Your task to perform on an android device: Open ESPN.com Image 0: 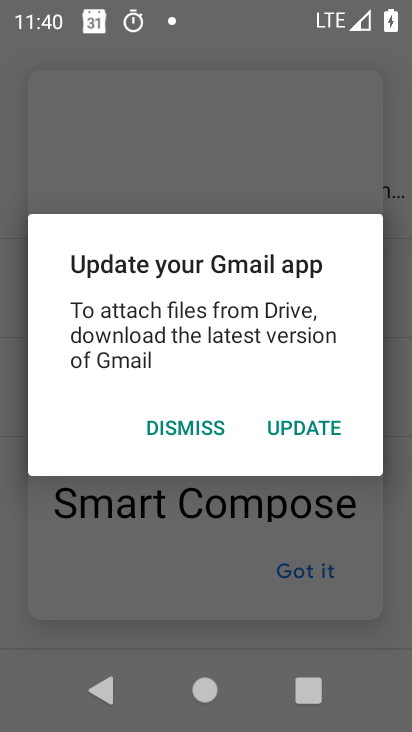
Step 0: press home button
Your task to perform on an android device: Open ESPN.com Image 1: 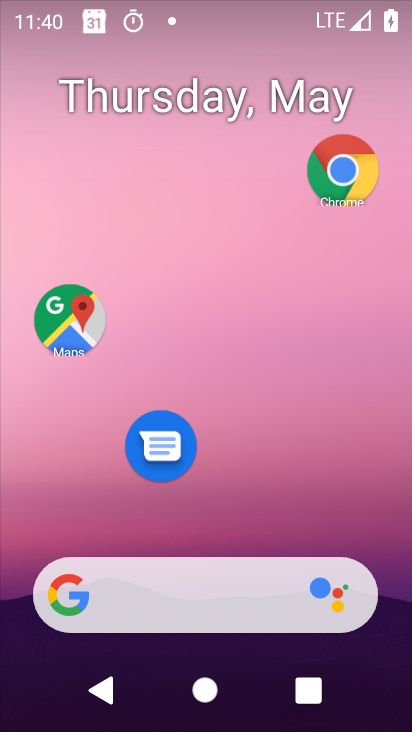
Step 1: drag from (277, 617) to (295, 1)
Your task to perform on an android device: Open ESPN.com Image 2: 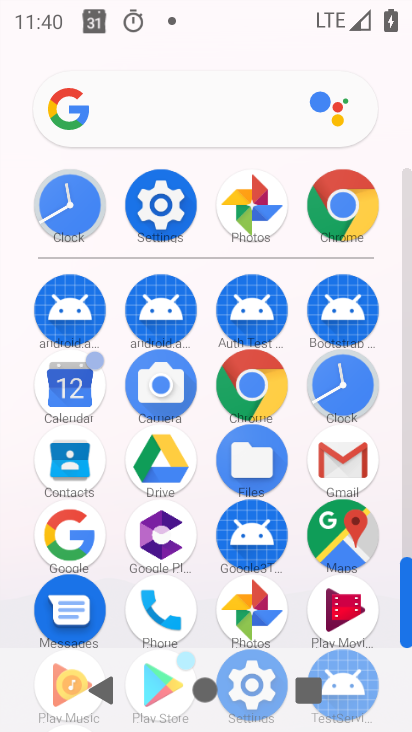
Step 2: click (255, 376)
Your task to perform on an android device: Open ESPN.com Image 3: 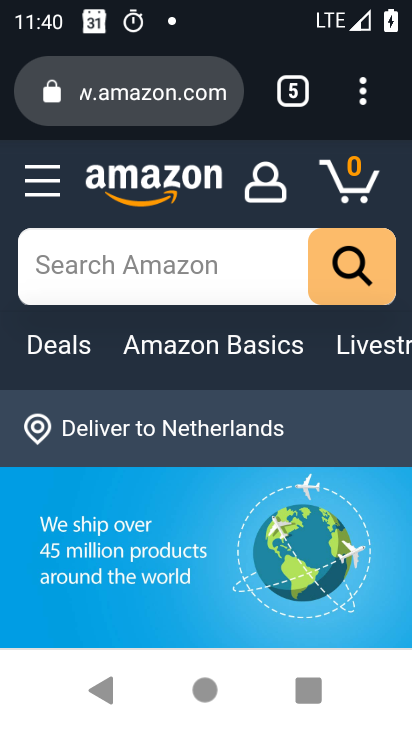
Step 3: click (168, 79)
Your task to perform on an android device: Open ESPN.com Image 4: 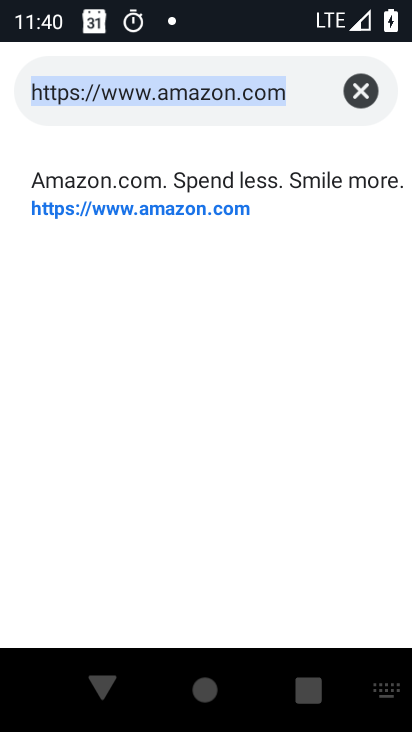
Step 4: click (371, 97)
Your task to perform on an android device: Open ESPN.com Image 5: 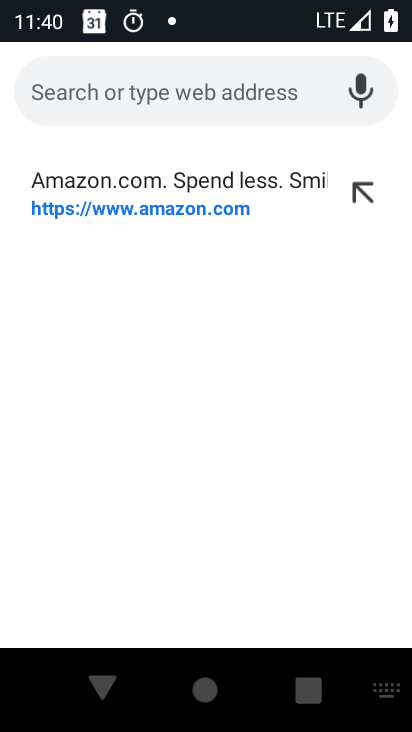
Step 5: type "espn.com"
Your task to perform on an android device: Open ESPN.com Image 6: 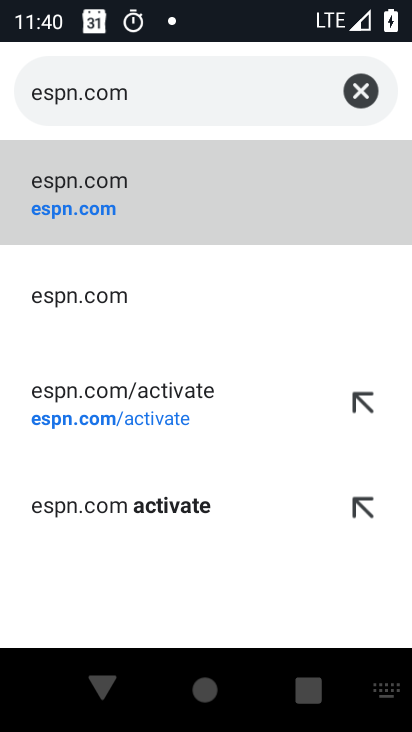
Step 6: click (144, 196)
Your task to perform on an android device: Open ESPN.com Image 7: 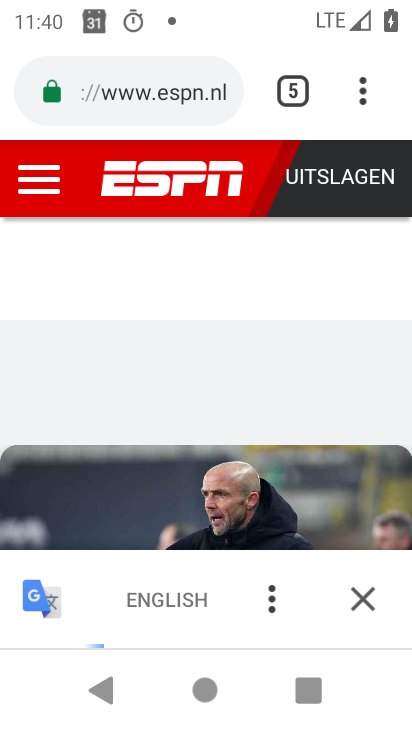
Step 7: task complete